Your task to perform on an android device: check google app version Image 0: 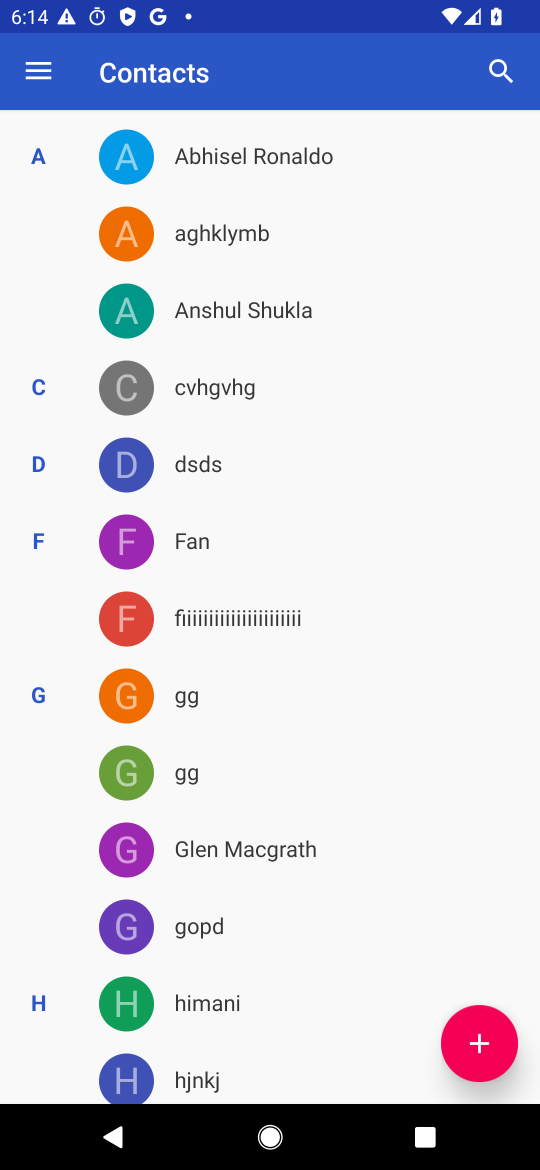
Step 0: press home button
Your task to perform on an android device: check google app version Image 1: 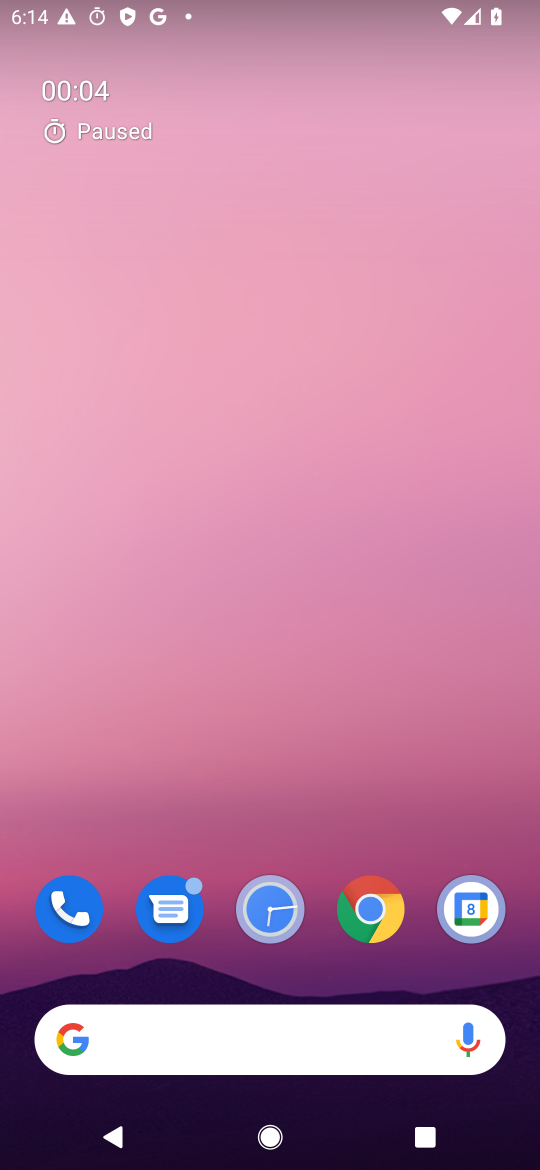
Step 1: drag from (299, 1053) to (487, 216)
Your task to perform on an android device: check google app version Image 2: 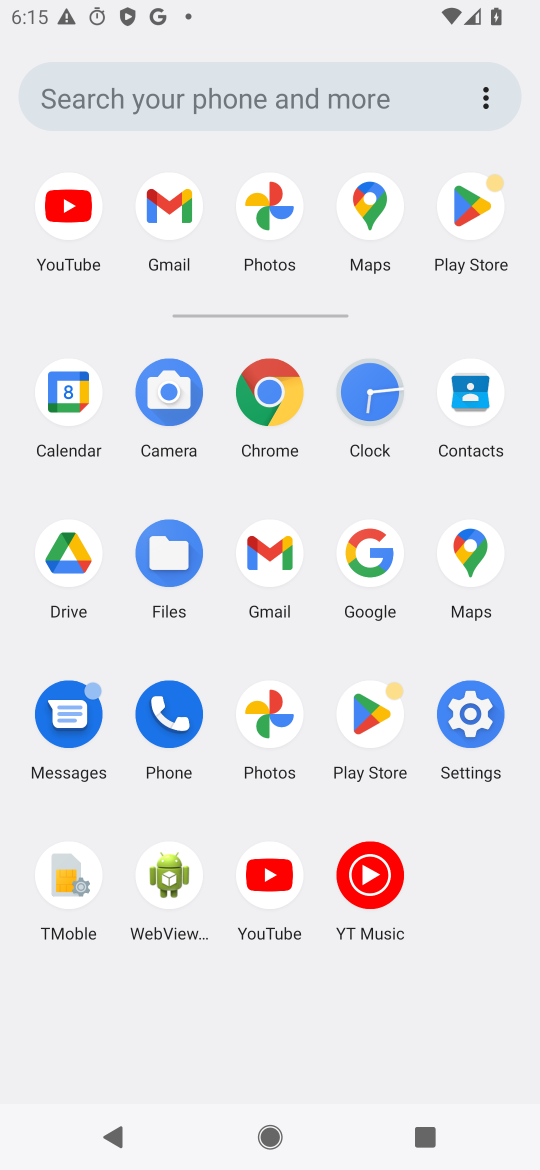
Step 2: click (372, 562)
Your task to perform on an android device: check google app version Image 3: 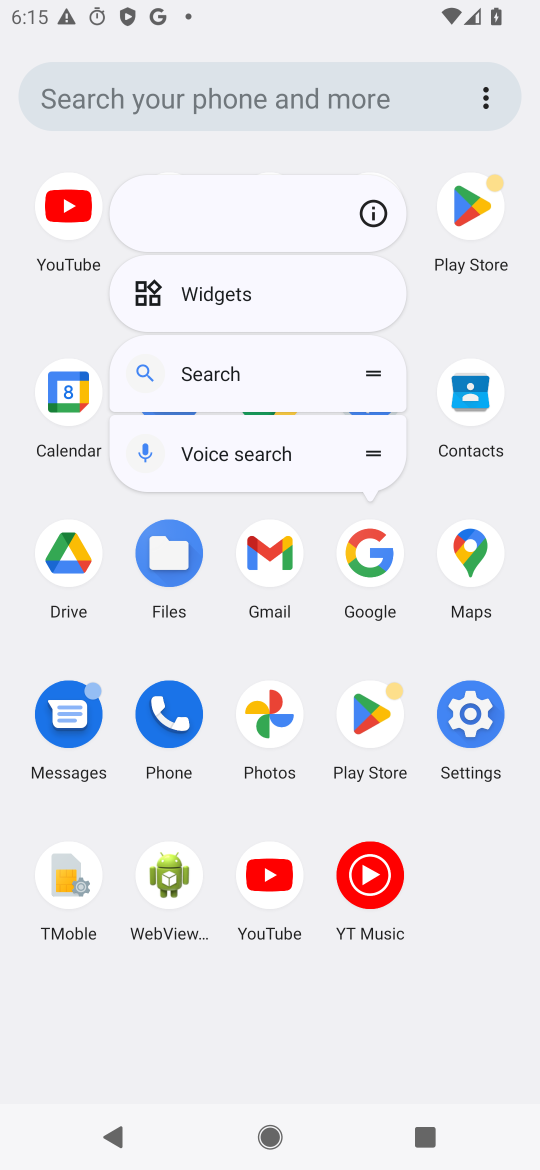
Step 3: click (378, 211)
Your task to perform on an android device: check google app version Image 4: 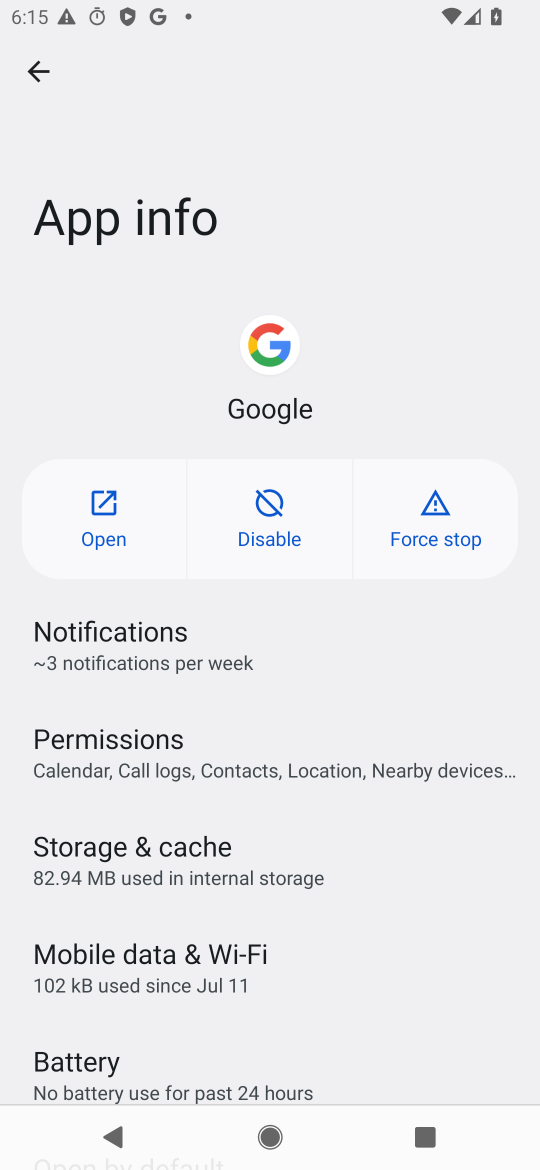
Step 4: task complete